Your task to perform on an android device: Go to accessibility settings Image 0: 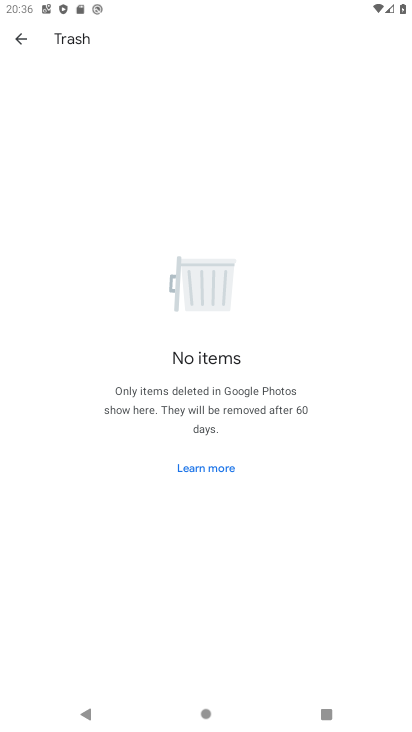
Step 0: press home button
Your task to perform on an android device: Go to accessibility settings Image 1: 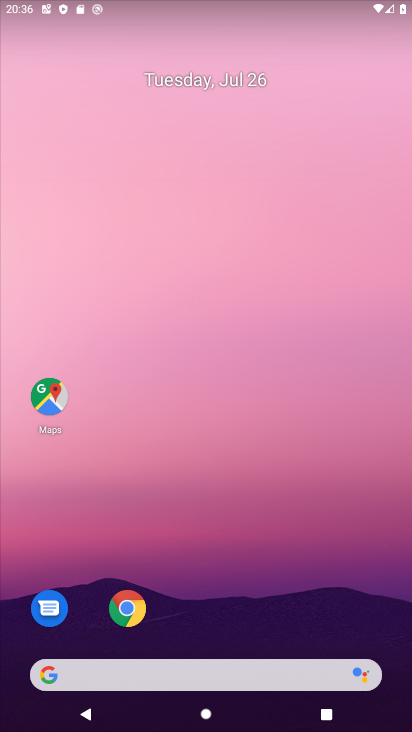
Step 1: drag from (56, 645) to (224, 47)
Your task to perform on an android device: Go to accessibility settings Image 2: 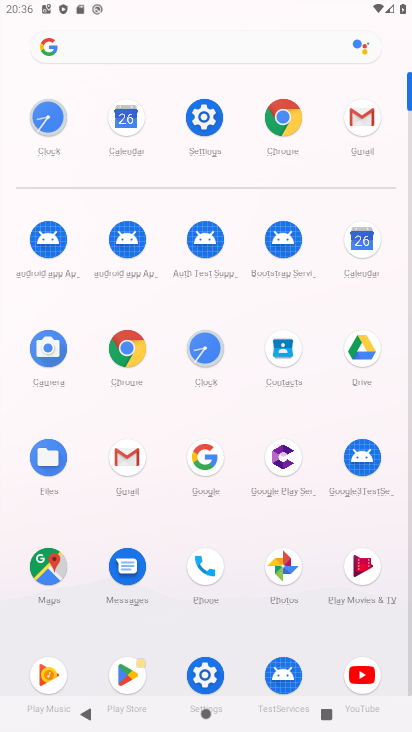
Step 2: click (208, 672)
Your task to perform on an android device: Go to accessibility settings Image 3: 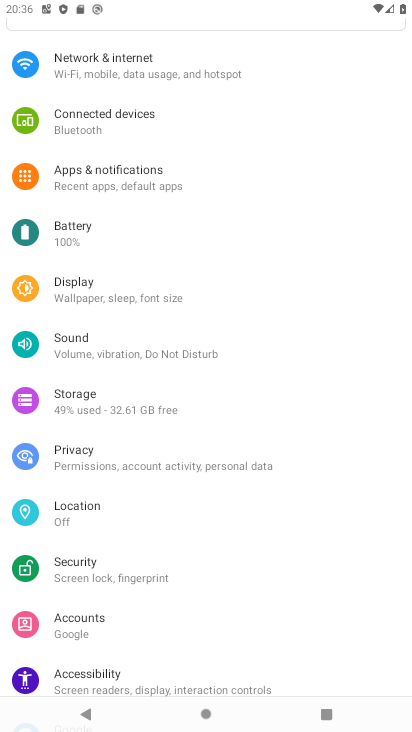
Step 3: click (60, 676)
Your task to perform on an android device: Go to accessibility settings Image 4: 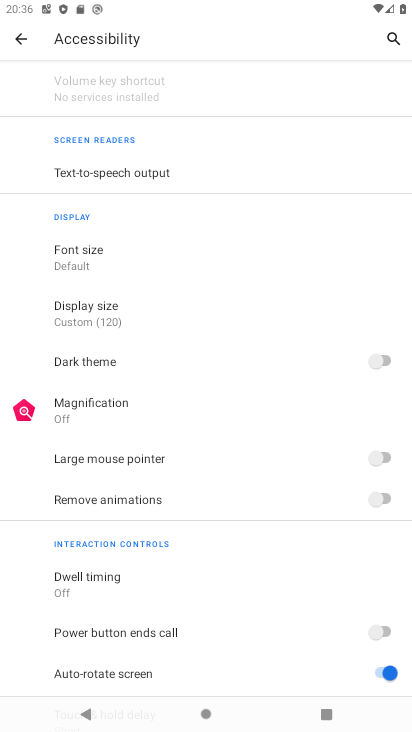
Step 4: task complete